Your task to perform on an android device: move a message to another label in the gmail app Image 0: 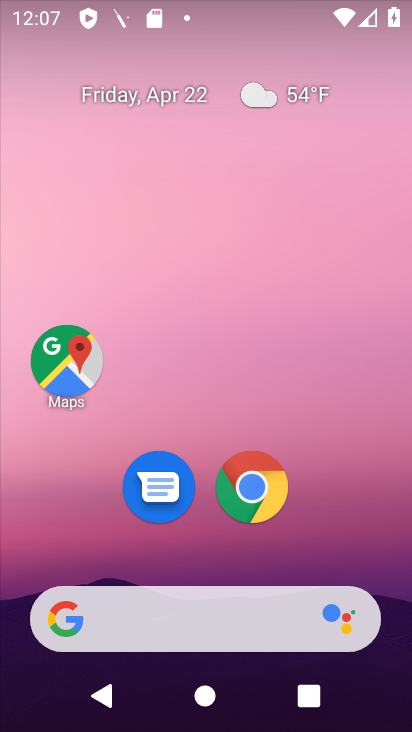
Step 0: drag from (337, 453) to (341, 122)
Your task to perform on an android device: move a message to another label in the gmail app Image 1: 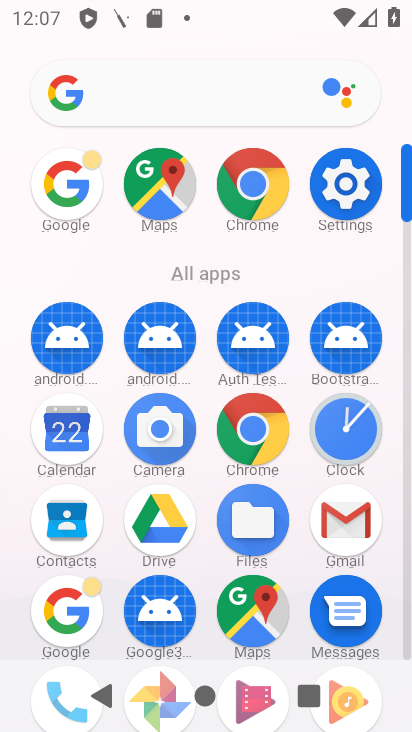
Step 1: click (358, 507)
Your task to perform on an android device: move a message to another label in the gmail app Image 2: 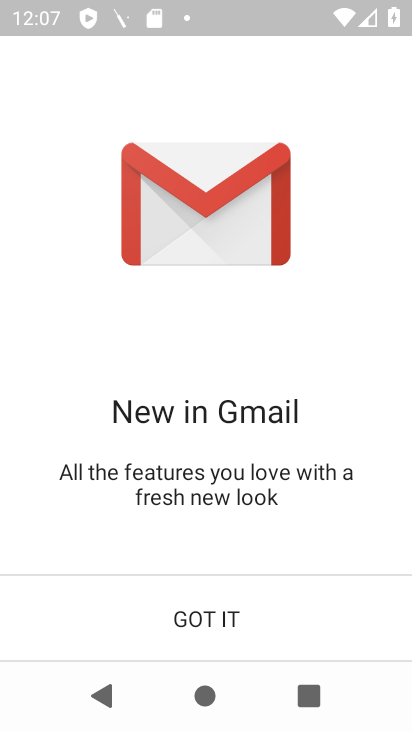
Step 2: click (206, 607)
Your task to perform on an android device: move a message to another label in the gmail app Image 3: 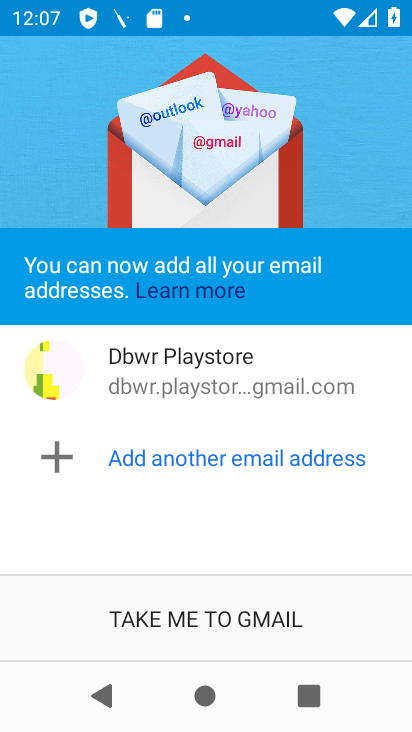
Step 3: click (228, 600)
Your task to perform on an android device: move a message to another label in the gmail app Image 4: 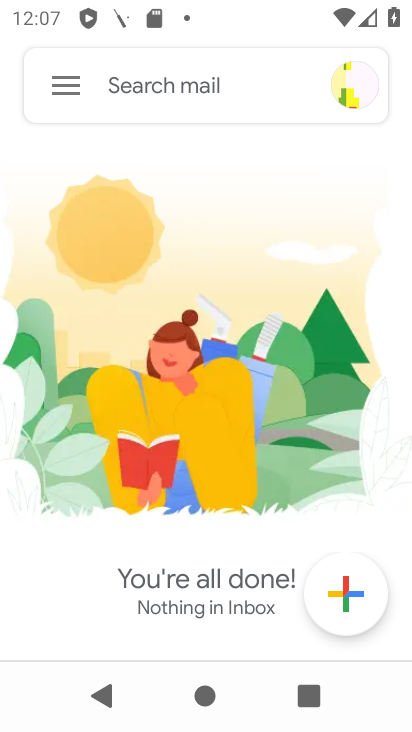
Step 4: click (46, 73)
Your task to perform on an android device: move a message to another label in the gmail app Image 5: 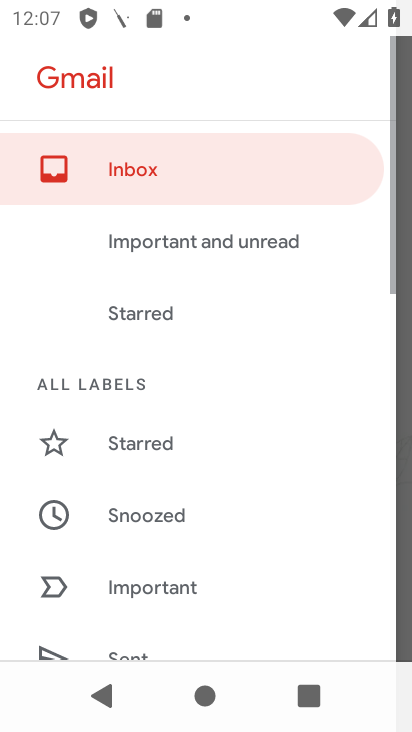
Step 5: drag from (227, 574) to (272, 115)
Your task to perform on an android device: move a message to another label in the gmail app Image 6: 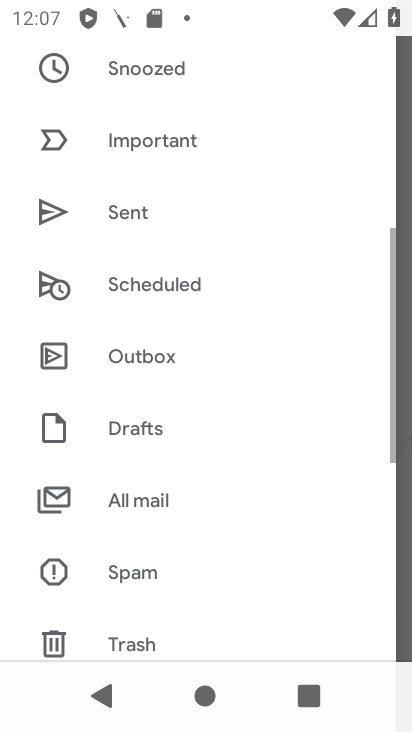
Step 6: click (219, 512)
Your task to perform on an android device: move a message to another label in the gmail app Image 7: 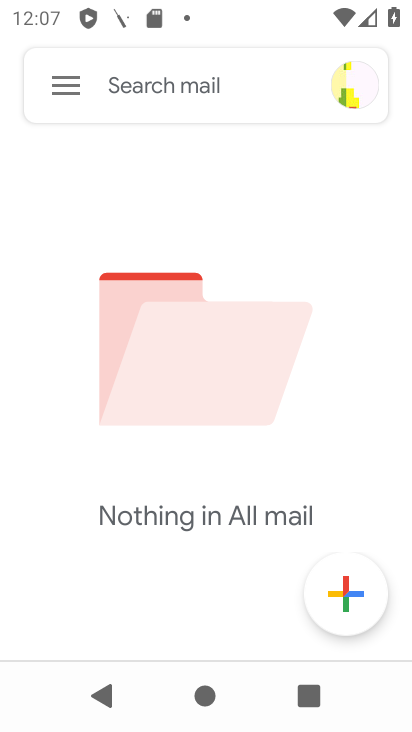
Step 7: task complete